Your task to perform on an android device: Open settings Image 0: 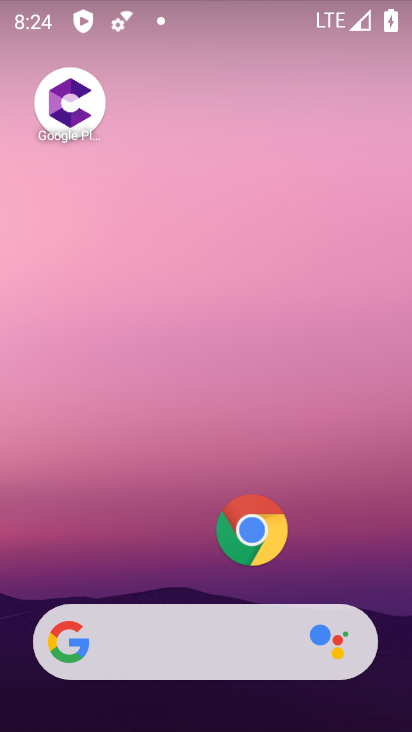
Step 0: drag from (127, 606) to (263, 58)
Your task to perform on an android device: Open settings Image 1: 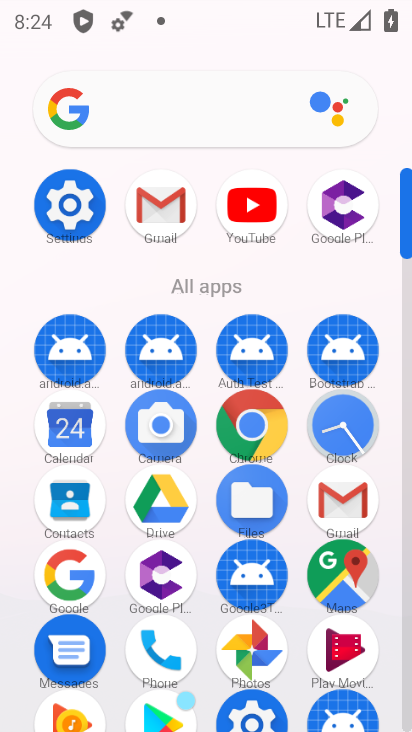
Step 1: drag from (188, 597) to (278, 315)
Your task to perform on an android device: Open settings Image 2: 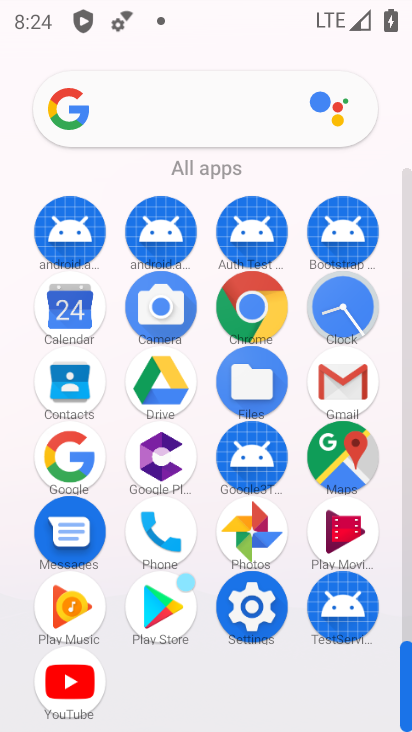
Step 2: click (246, 610)
Your task to perform on an android device: Open settings Image 3: 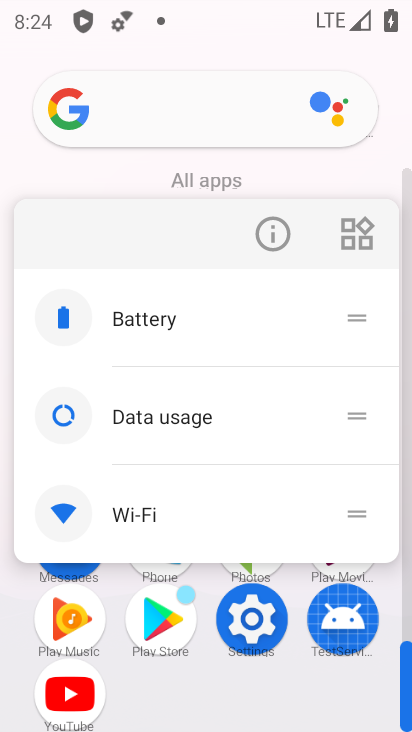
Step 3: click (241, 616)
Your task to perform on an android device: Open settings Image 4: 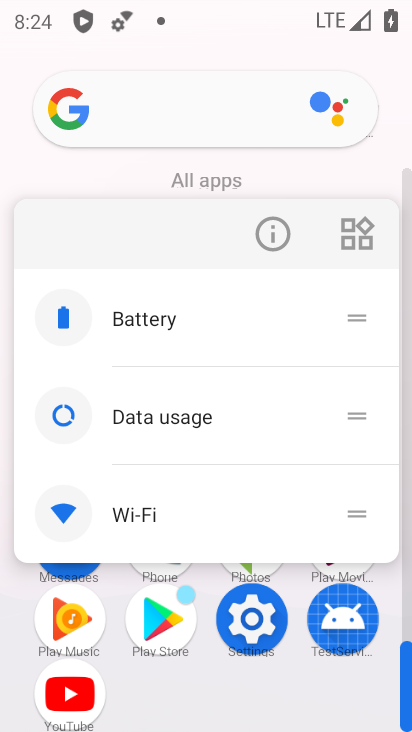
Step 4: click (249, 625)
Your task to perform on an android device: Open settings Image 5: 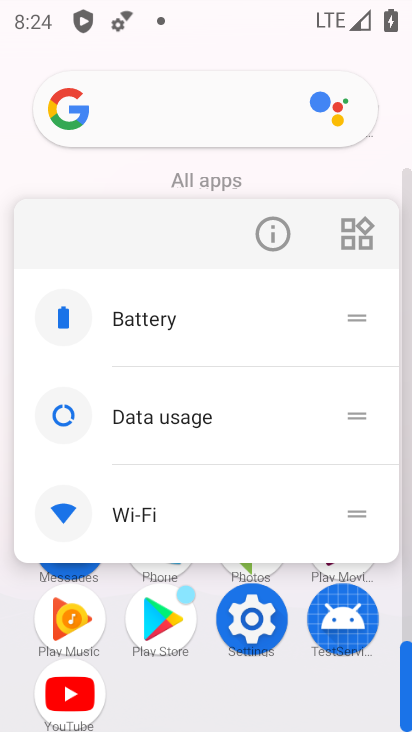
Step 5: click (266, 637)
Your task to perform on an android device: Open settings Image 6: 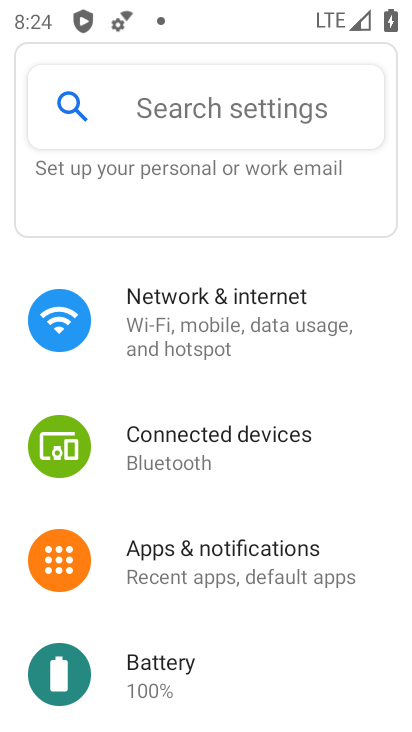
Step 6: task complete